Your task to perform on an android device: What's the weather today? Image 0: 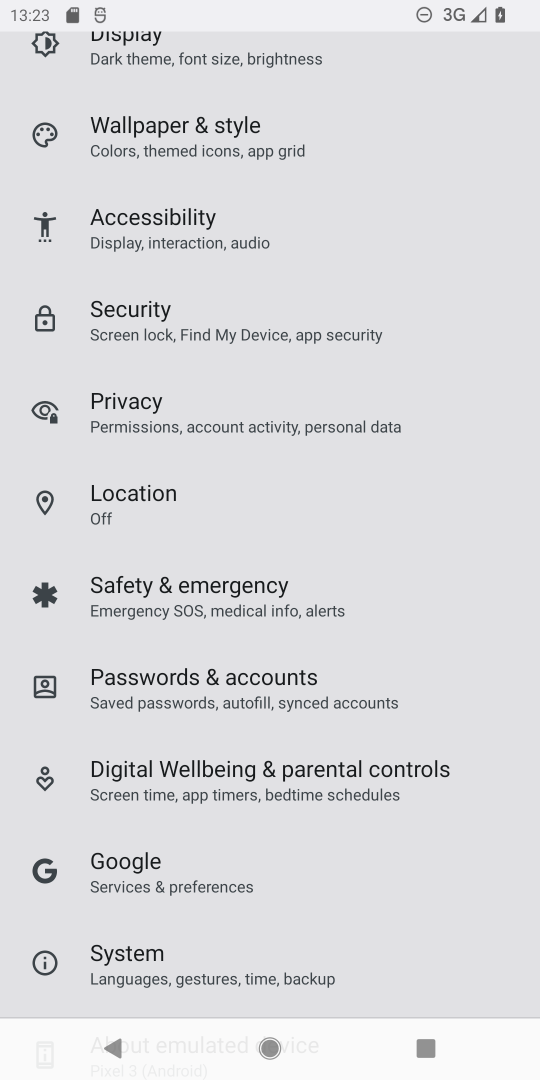
Step 0: press home button
Your task to perform on an android device: What's the weather today? Image 1: 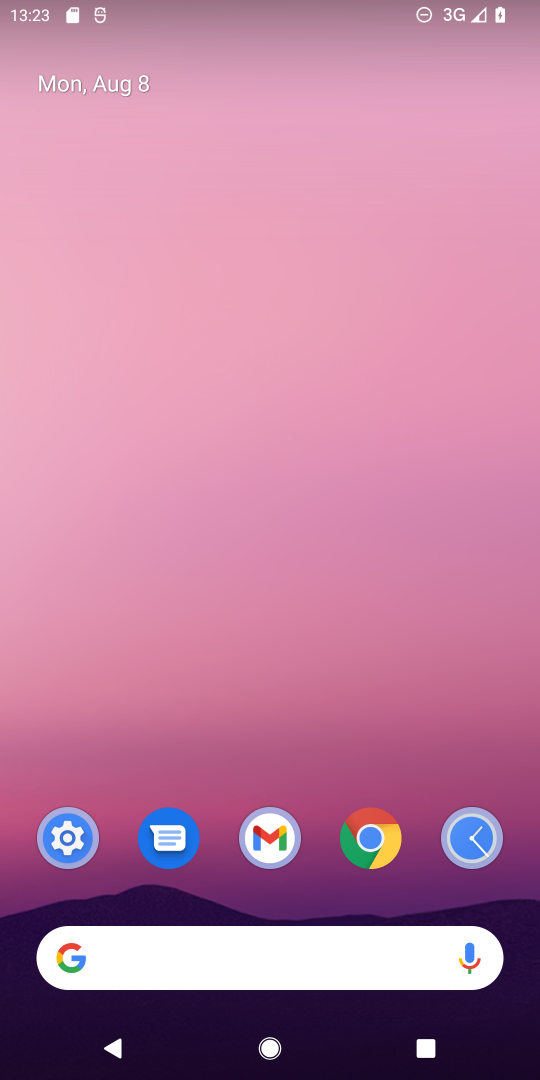
Step 1: click (61, 964)
Your task to perform on an android device: What's the weather today? Image 2: 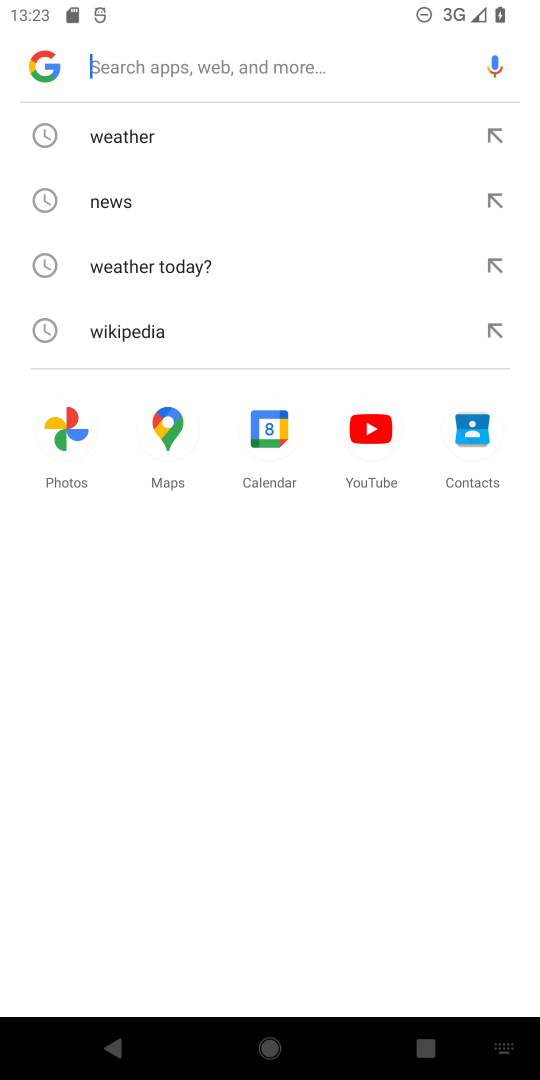
Step 2: click (144, 271)
Your task to perform on an android device: What's the weather today? Image 3: 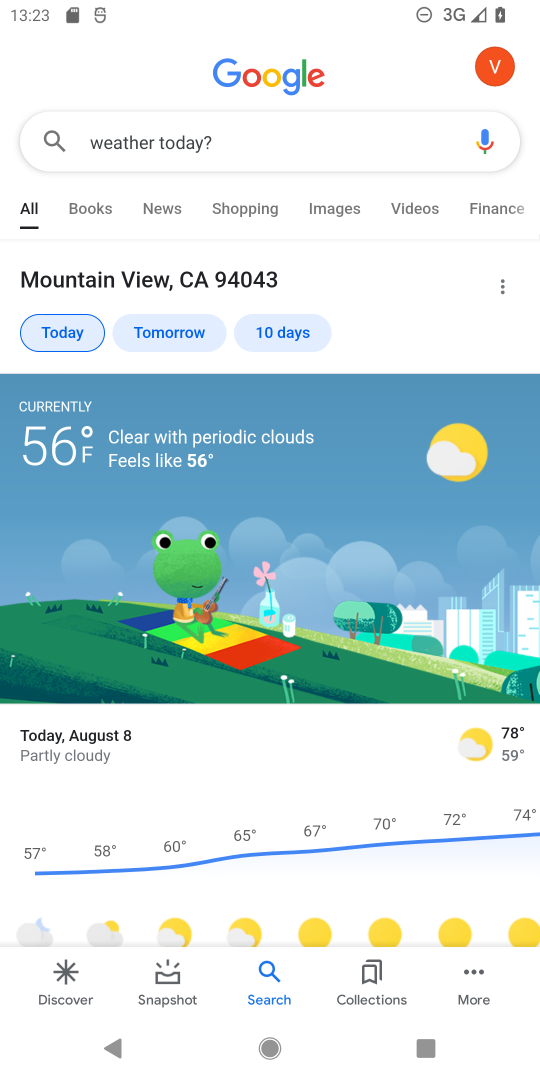
Step 3: task complete